Your task to perform on an android device: Go to internet settings Image 0: 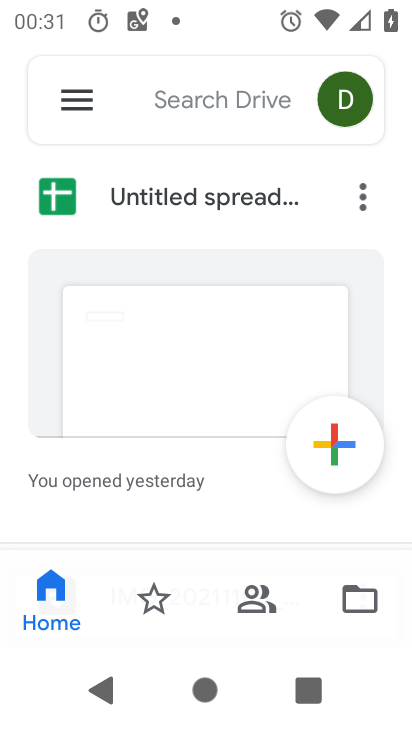
Step 0: press home button
Your task to perform on an android device: Go to internet settings Image 1: 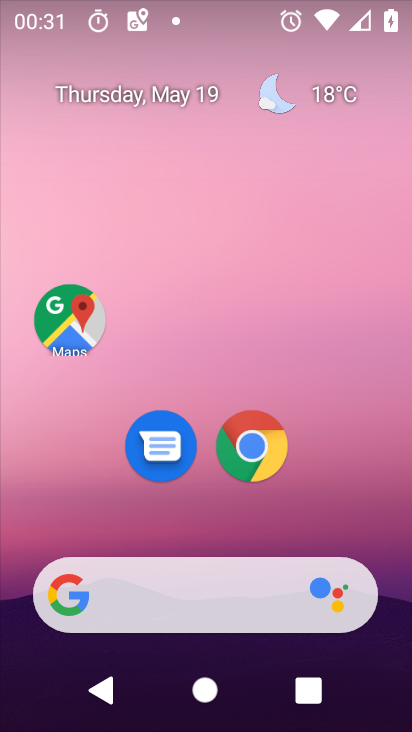
Step 1: drag from (233, 571) to (306, 137)
Your task to perform on an android device: Go to internet settings Image 2: 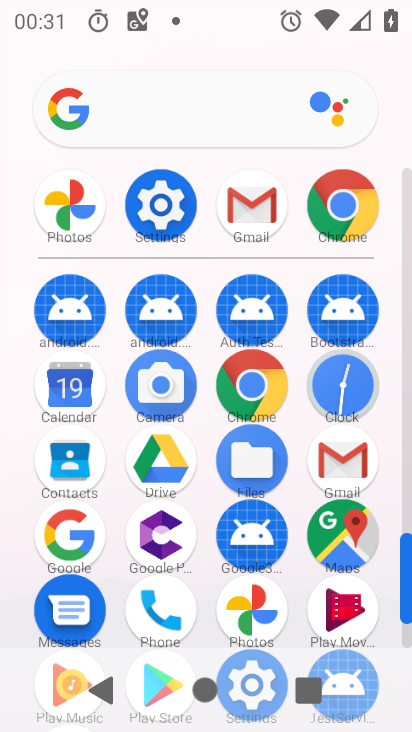
Step 2: click (166, 209)
Your task to perform on an android device: Go to internet settings Image 3: 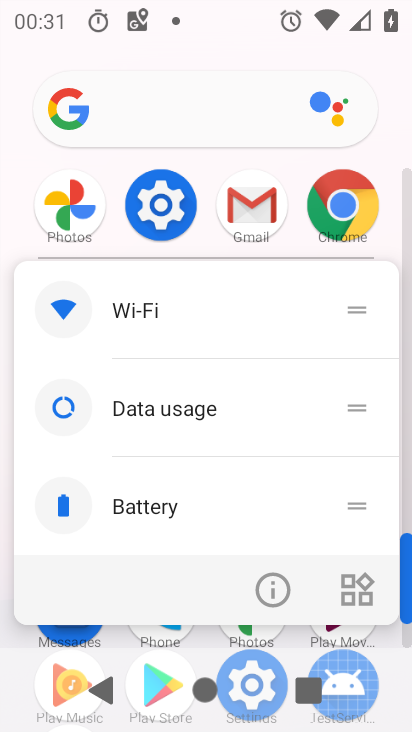
Step 3: click (166, 208)
Your task to perform on an android device: Go to internet settings Image 4: 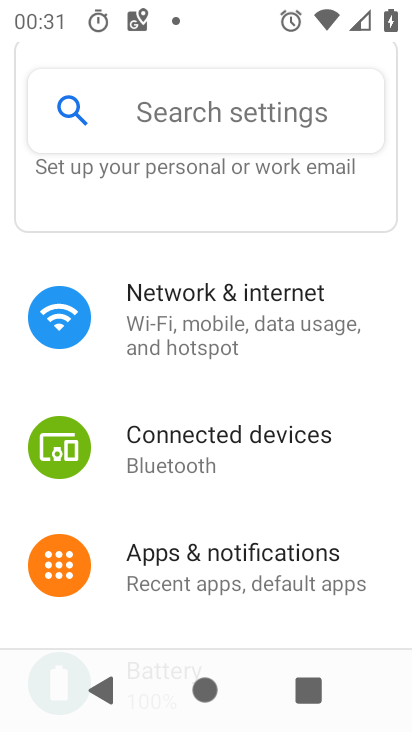
Step 4: click (265, 290)
Your task to perform on an android device: Go to internet settings Image 5: 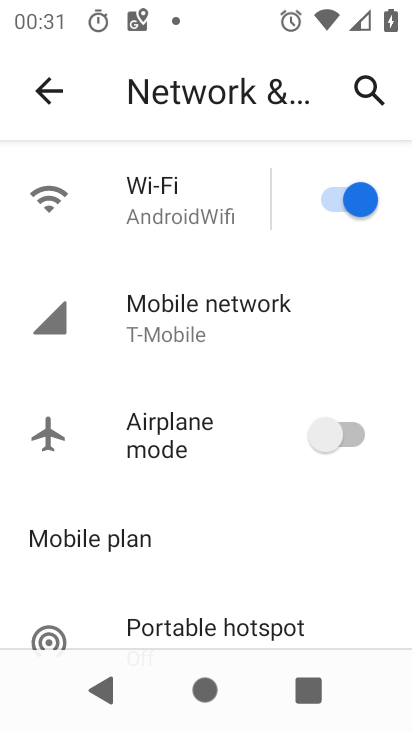
Step 5: task complete